Your task to perform on an android device: stop showing notifications on the lock screen Image 0: 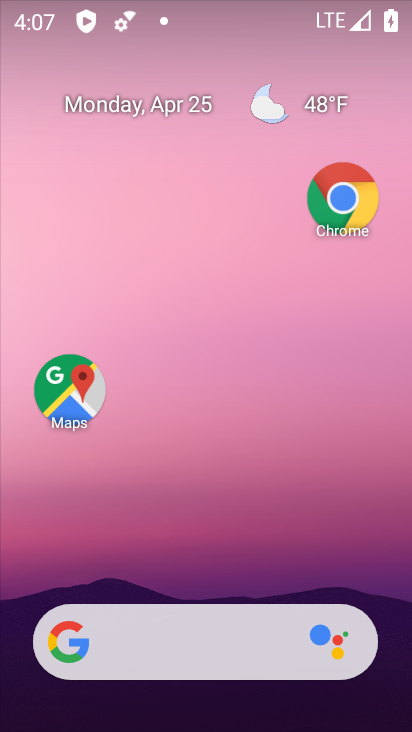
Step 0: drag from (182, 647) to (368, 40)
Your task to perform on an android device: stop showing notifications on the lock screen Image 1: 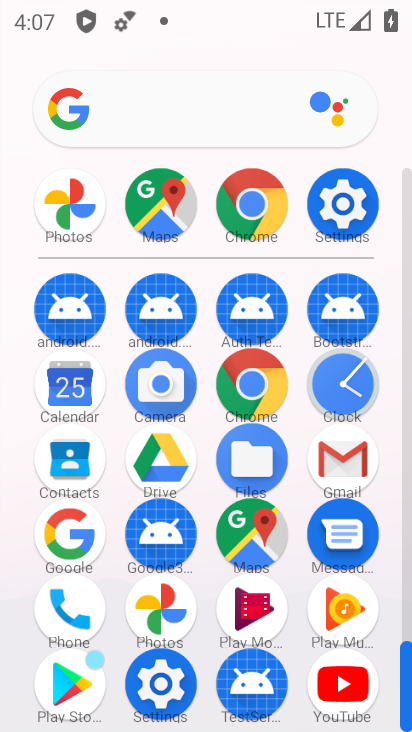
Step 1: click (344, 220)
Your task to perform on an android device: stop showing notifications on the lock screen Image 2: 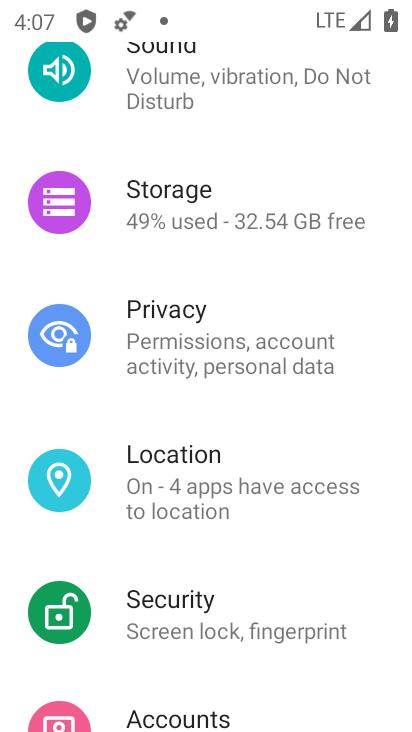
Step 2: drag from (266, 136) to (308, 268)
Your task to perform on an android device: stop showing notifications on the lock screen Image 3: 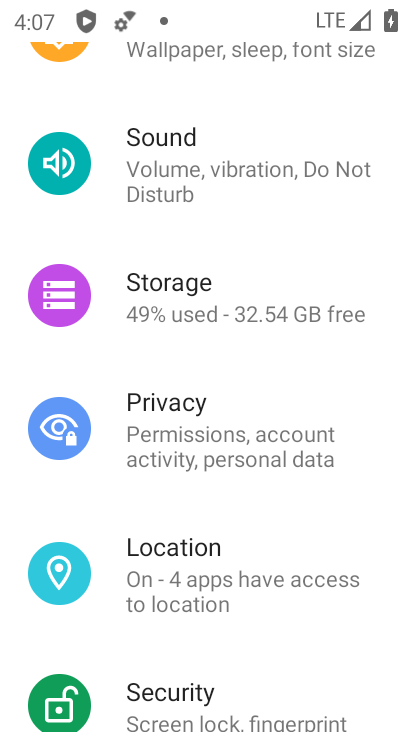
Step 3: drag from (293, 196) to (214, 638)
Your task to perform on an android device: stop showing notifications on the lock screen Image 4: 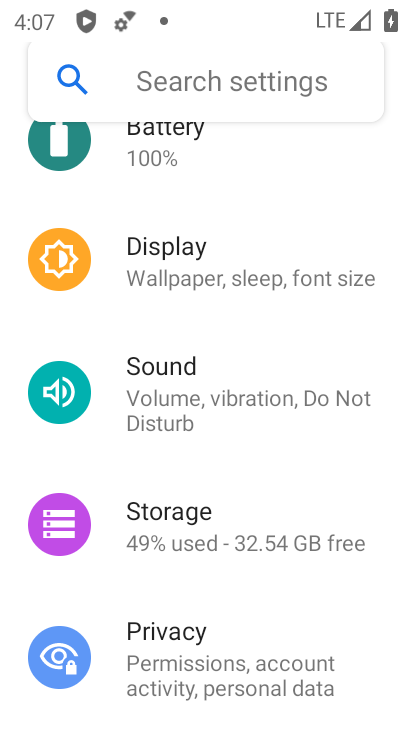
Step 4: drag from (283, 256) to (183, 655)
Your task to perform on an android device: stop showing notifications on the lock screen Image 5: 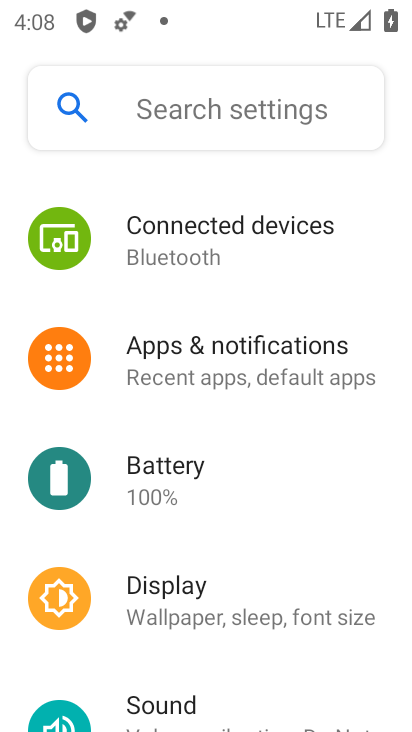
Step 5: click (198, 361)
Your task to perform on an android device: stop showing notifications on the lock screen Image 6: 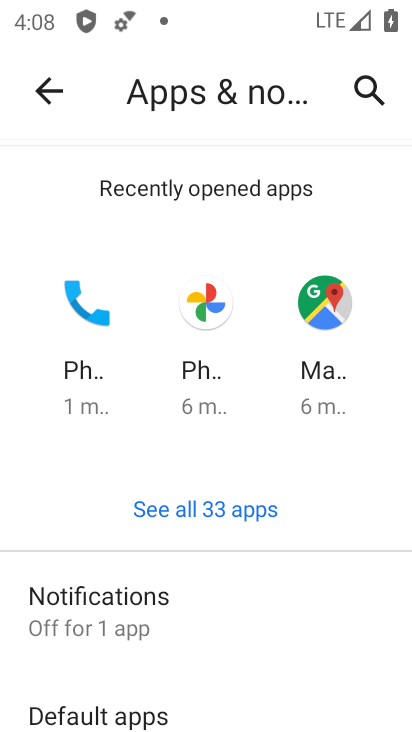
Step 6: drag from (166, 627) to (276, 378)
Your task to perform on an android device: stop showing notifications on the lock screen Image 7: 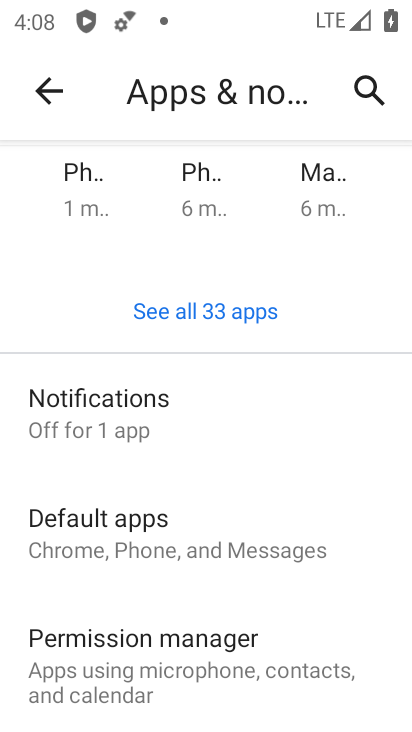
Step 7: click (140, 417)
Your task to perform on an android device: stop showing notifications on the lock screen Image 8: 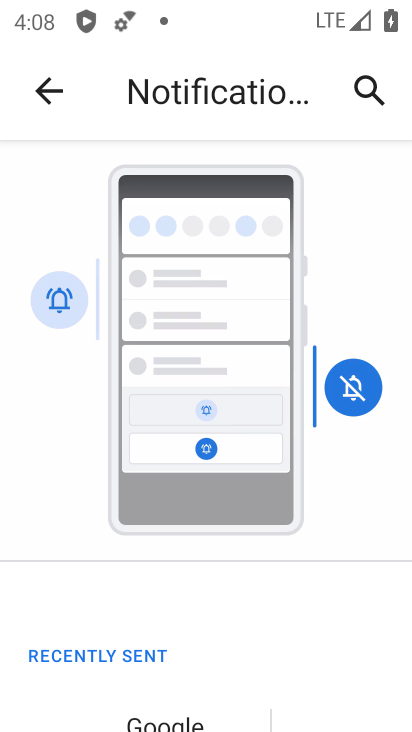
Step 8: drag from (244, 613) to (324, 215)
Your task to perform on an android device: stop showing notifications on the lock screen Image 9: 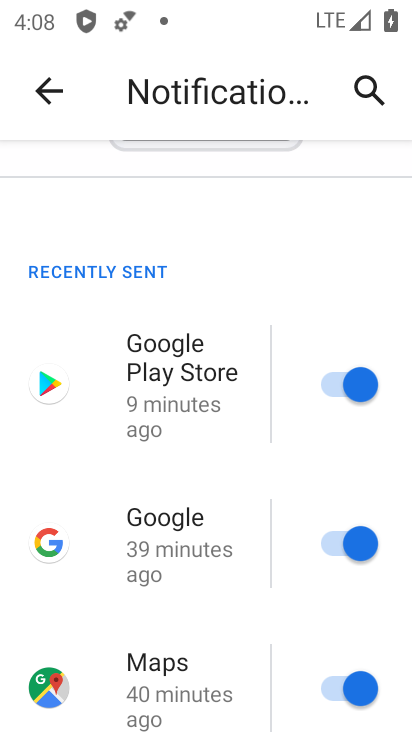
Step 9: drag from (246, 626) to (345, 263)
Your task to perform on an android device: stop showing notifications on the lock screen Image 10: 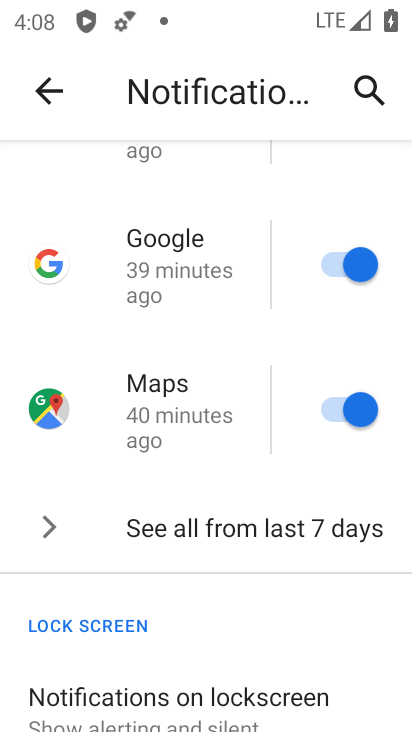
Step 10: drag from (219, 626) to (320, 206)
Your task to perform on an android device: stop showing notifications on the lock screen Image 11: 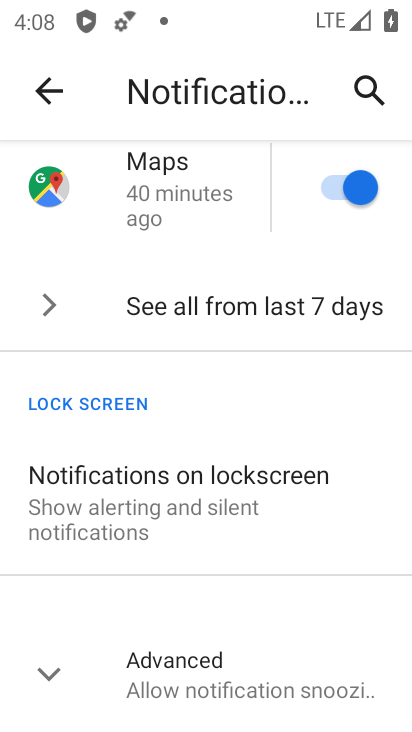
Step 11: click (229, 481)
Your task to perform on an android device: stop showing notifications on the lock screen Image 12: 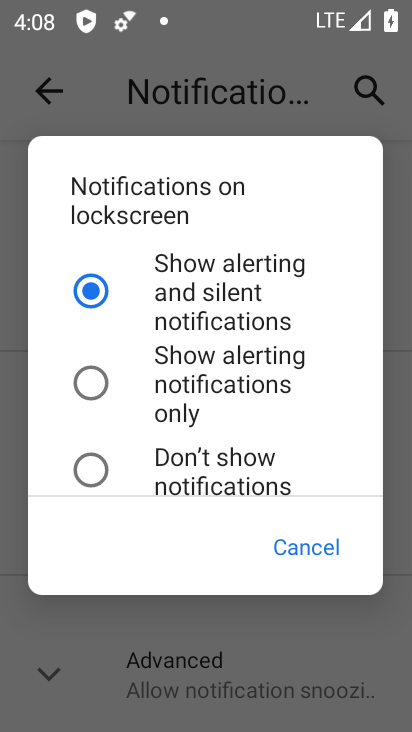
Step 12: click (91, 467)
Your task to perform on an android device: stop showing notifications on the lock screen Image 13: 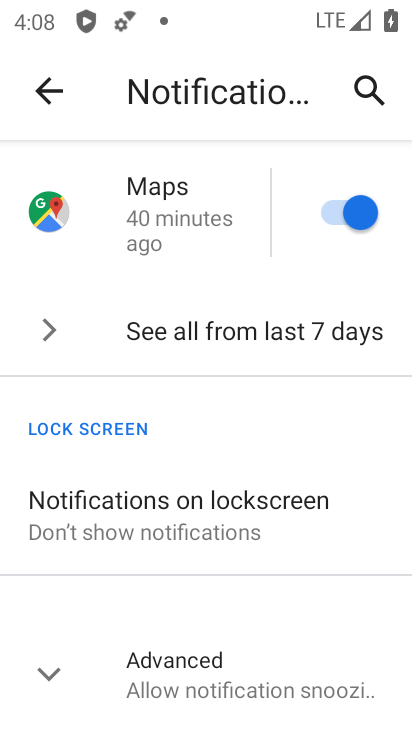
Step 13: task complete